Your task to perform on an android device: Go to Reddit.com Image 0: 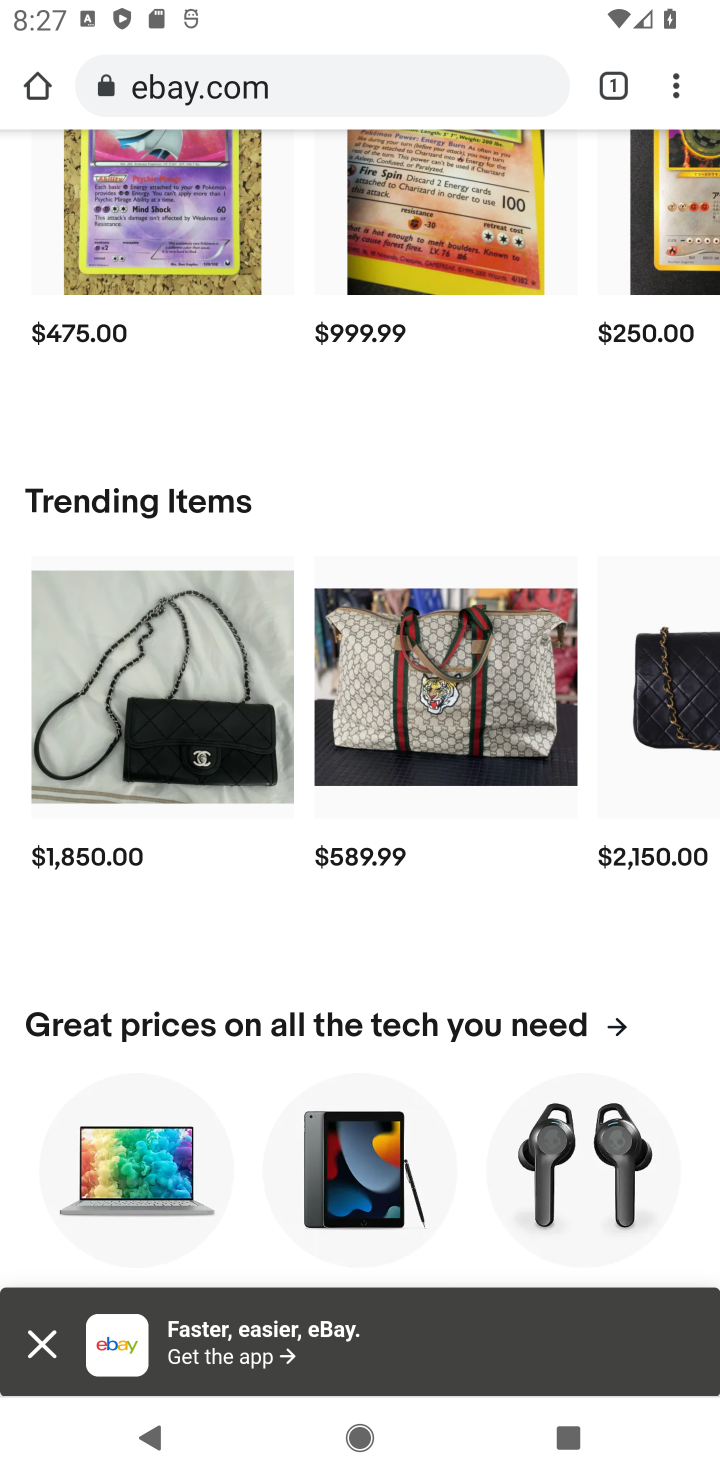
Step 0: click (411, 88)
Your task to perform on an android device: Go to Reddit.com Image 1: 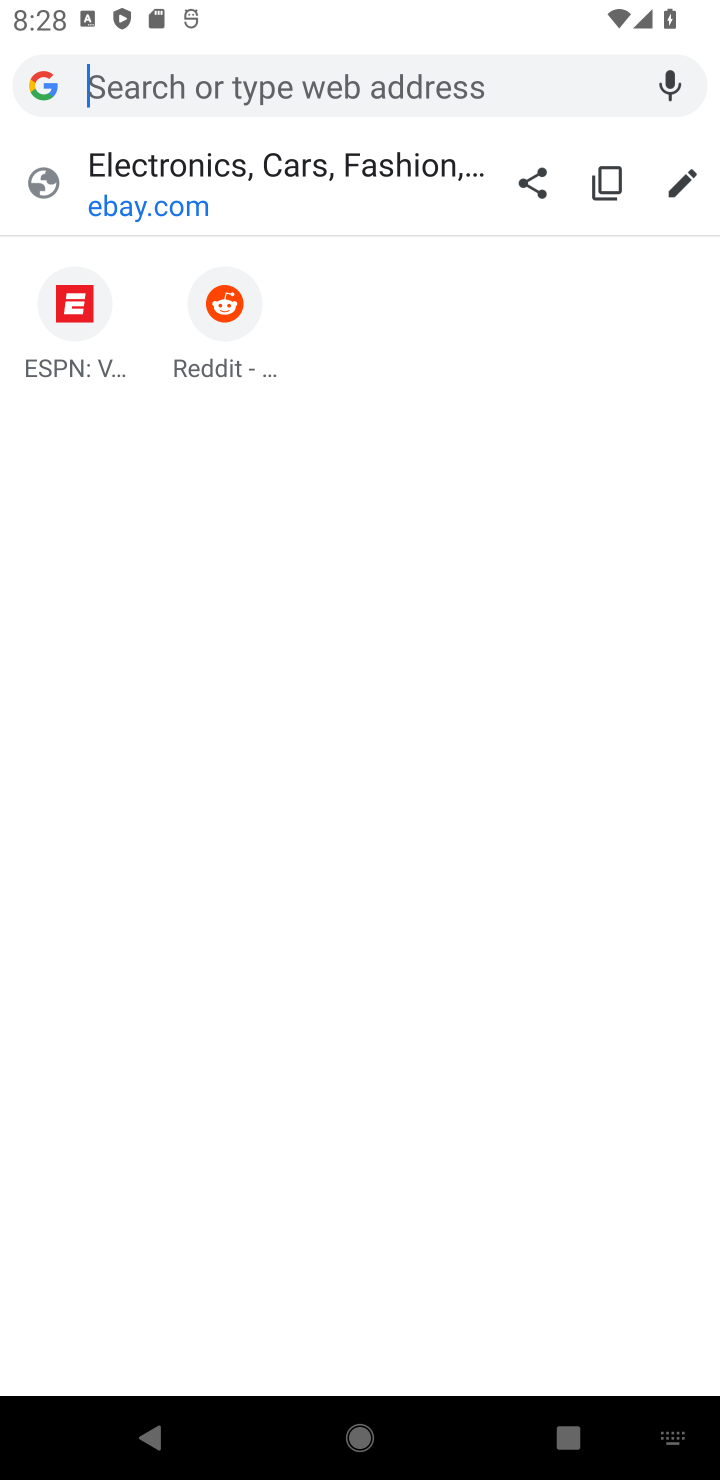
Step 1: type "reddit.com"
Your task to perform on an android device: Go to Reddit.com Image 2: 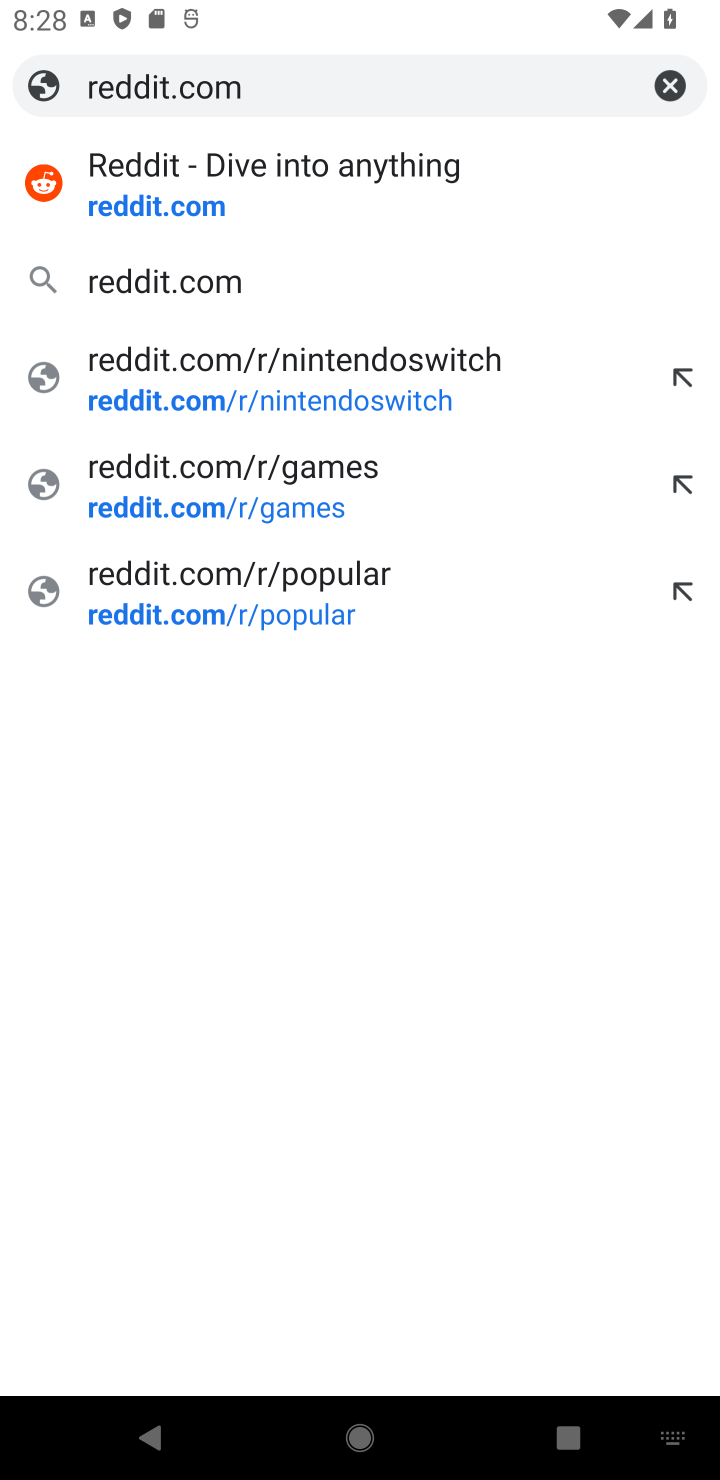
Step 2: click (163, 156)
Your task to perform on an android device: Go to Reddit.com Image 3: 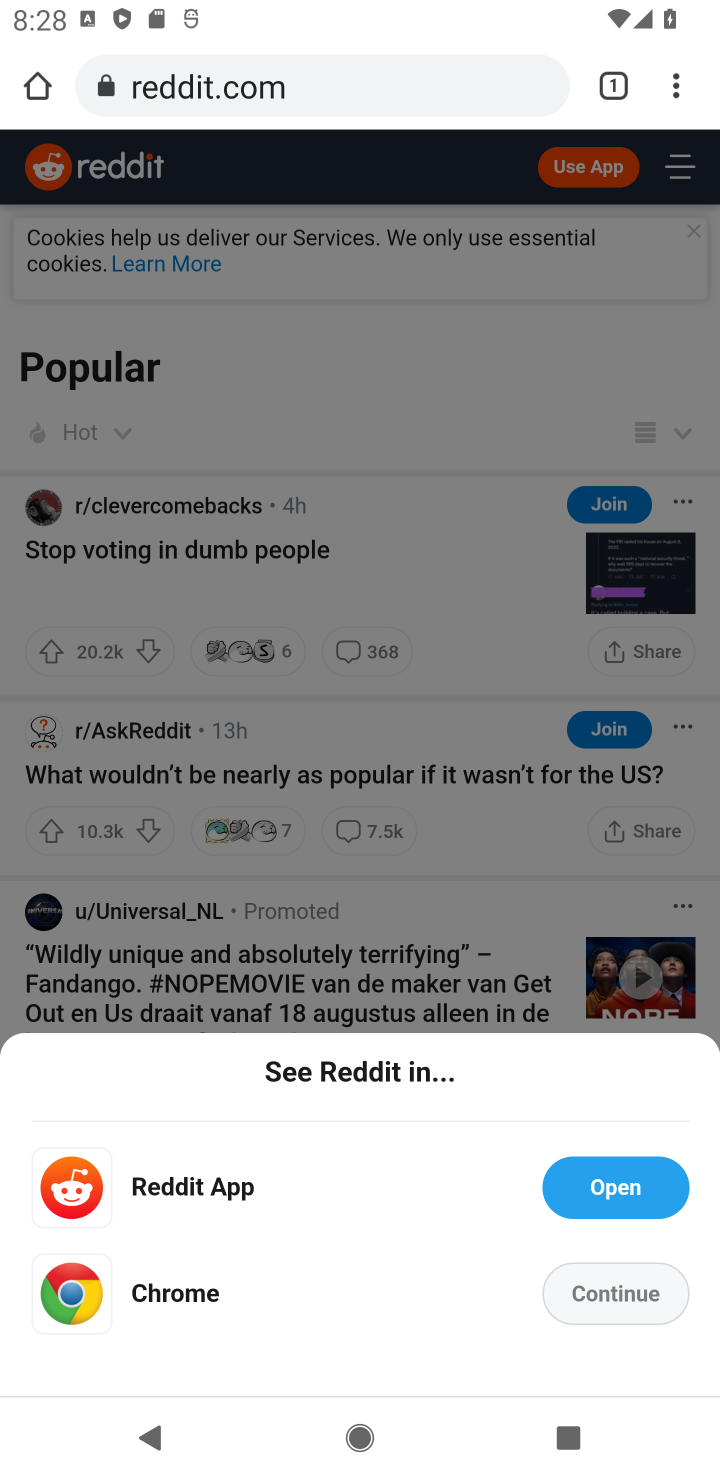
Step 3: task complete